Your task to perform on an android device: open a new tab in the chrome app Image 0: 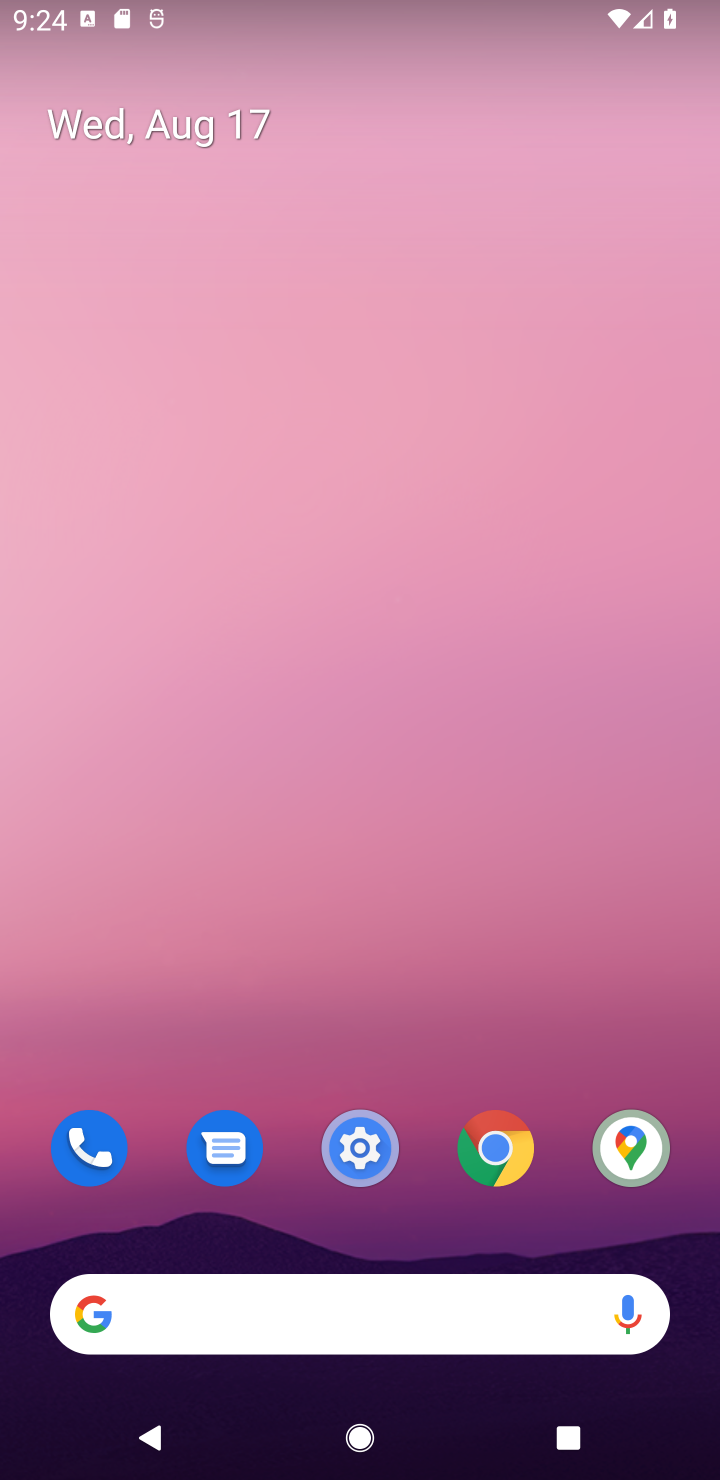
Step 0: click (502, 1156)
Your task to perform on an android device: open a new tab in the chrome app Image 1: 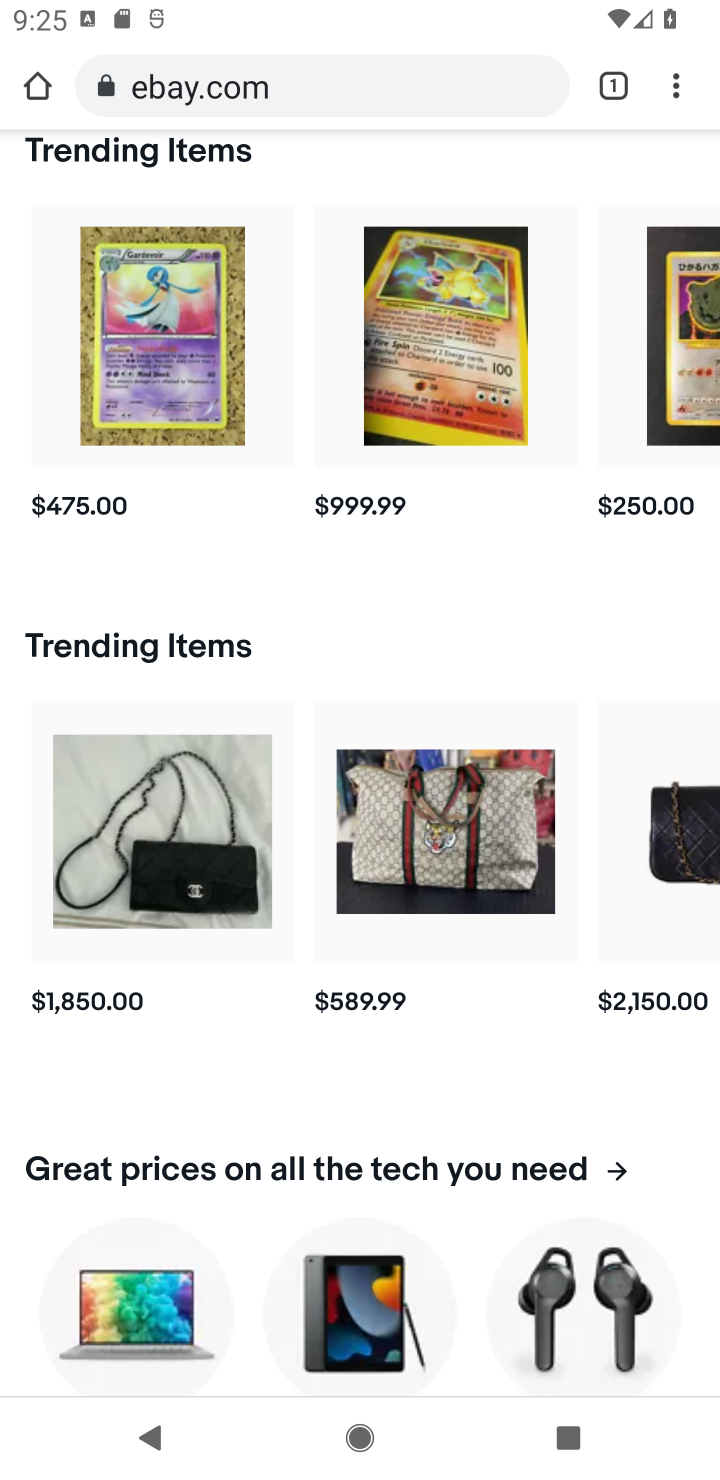
Step 1: click (667, 98)
Your task to perform on an android device: open a new tab in the chrome app Image 2: 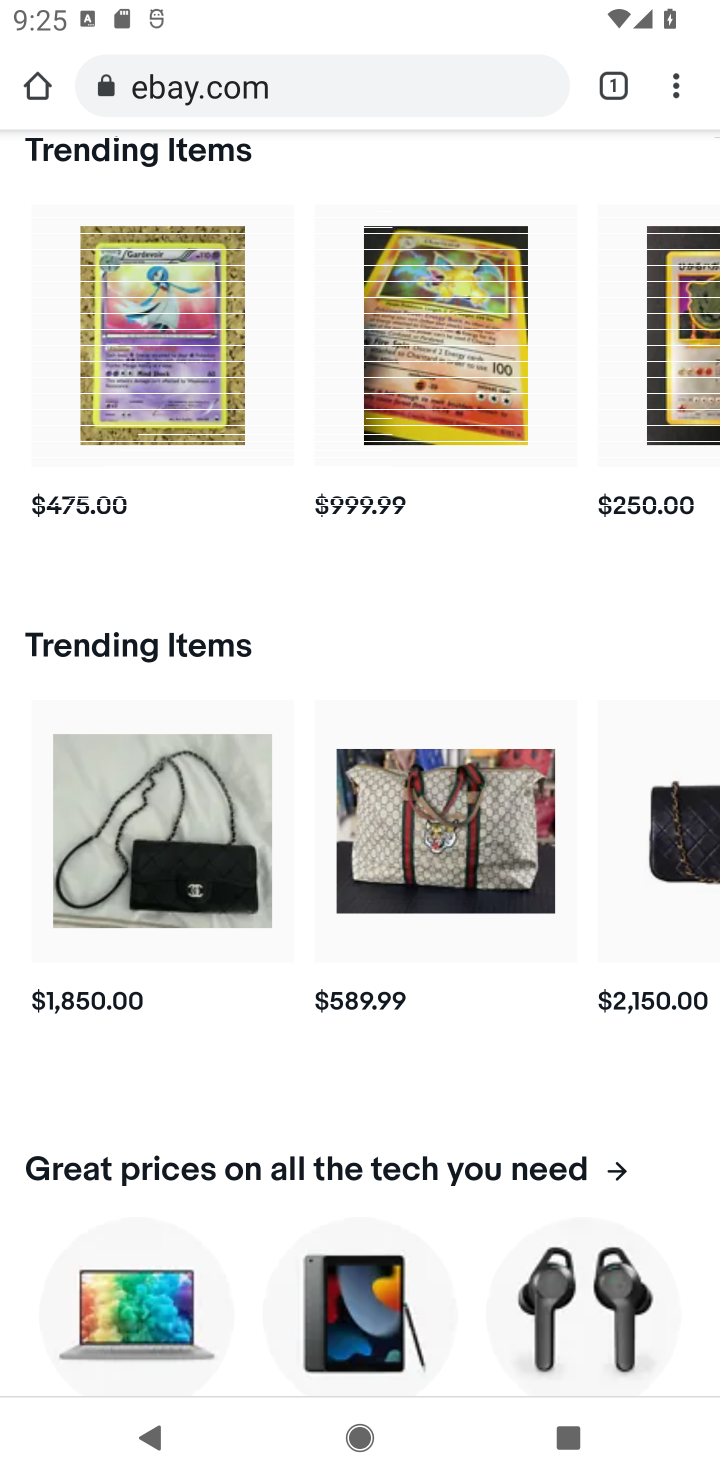
Step 2: click (667, 98)
Your task to perform on an android device: open a new tab in the chrome app Image 3: 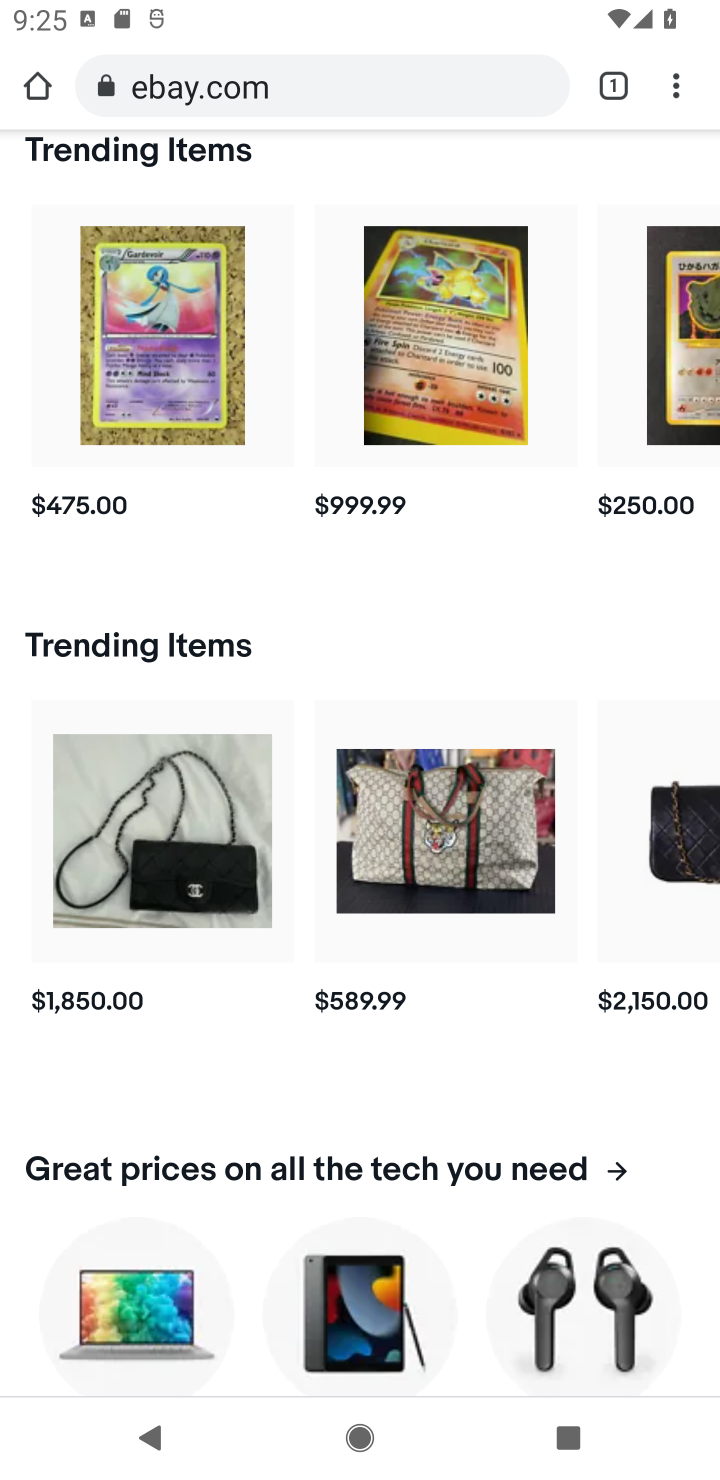
Step 3: click (681, 106)
Your task to perform on an android device: open a new tab in the chrome app Image 4: 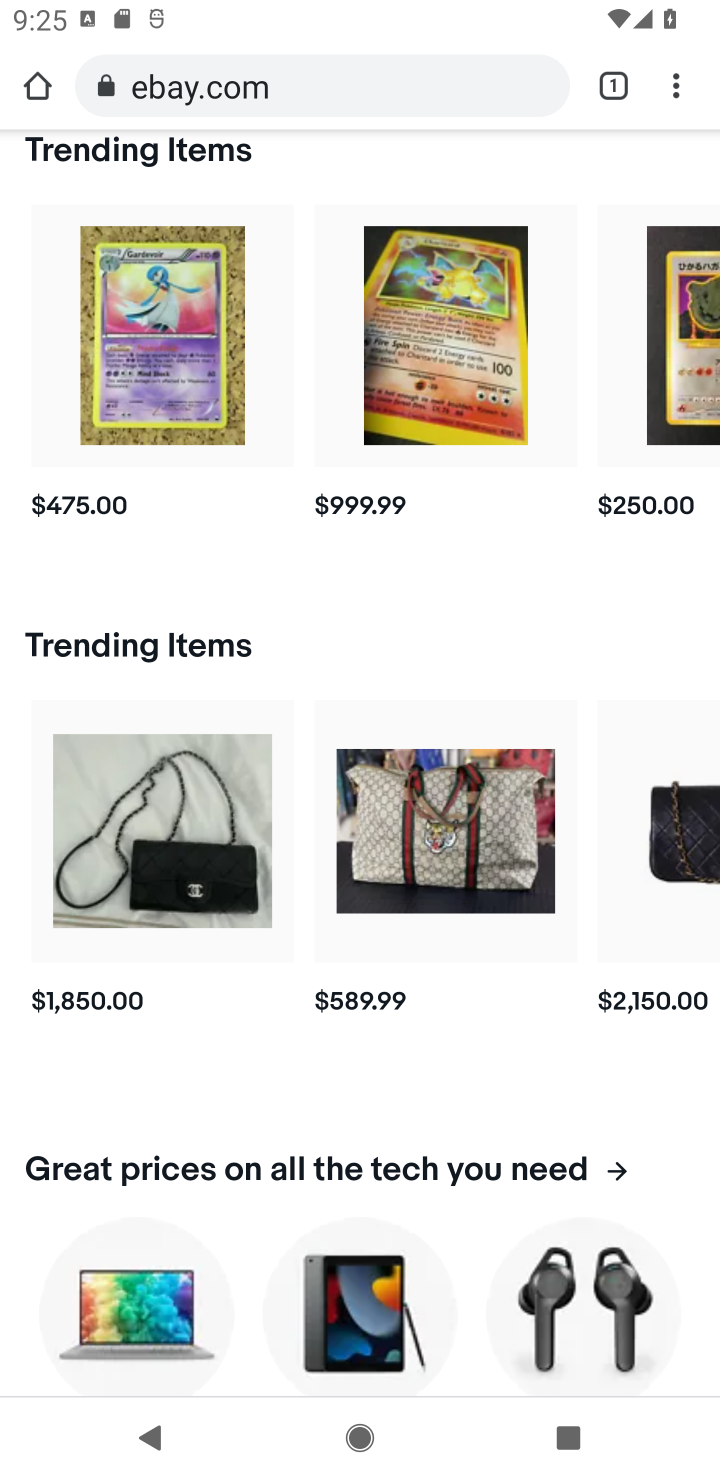
Step 4: click (676, 95)
Your task to perform on an android device: open a new tab in the chrome app Image 5: 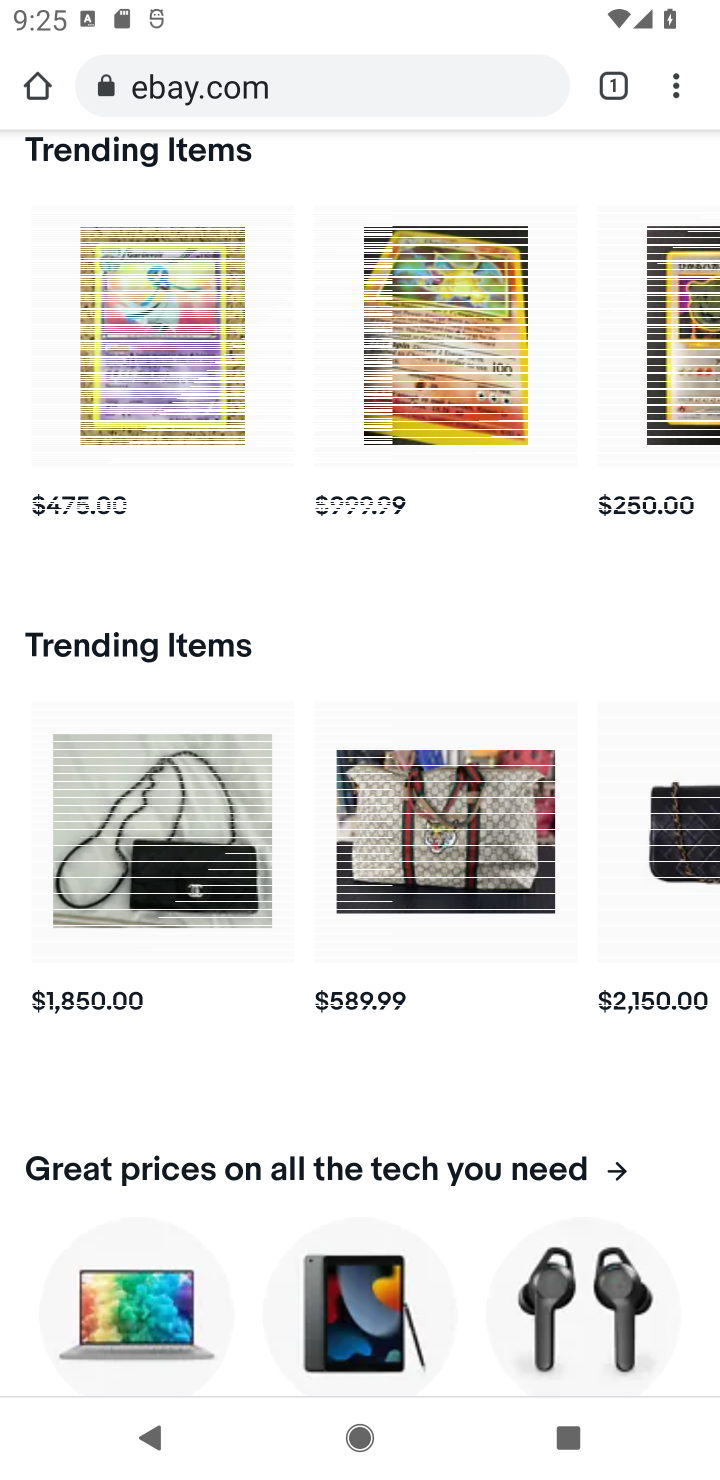
Step 5: task complete